Your task to perform on an android device: How much does a 3 bedroom apartment rent for in Austin? Image 0: 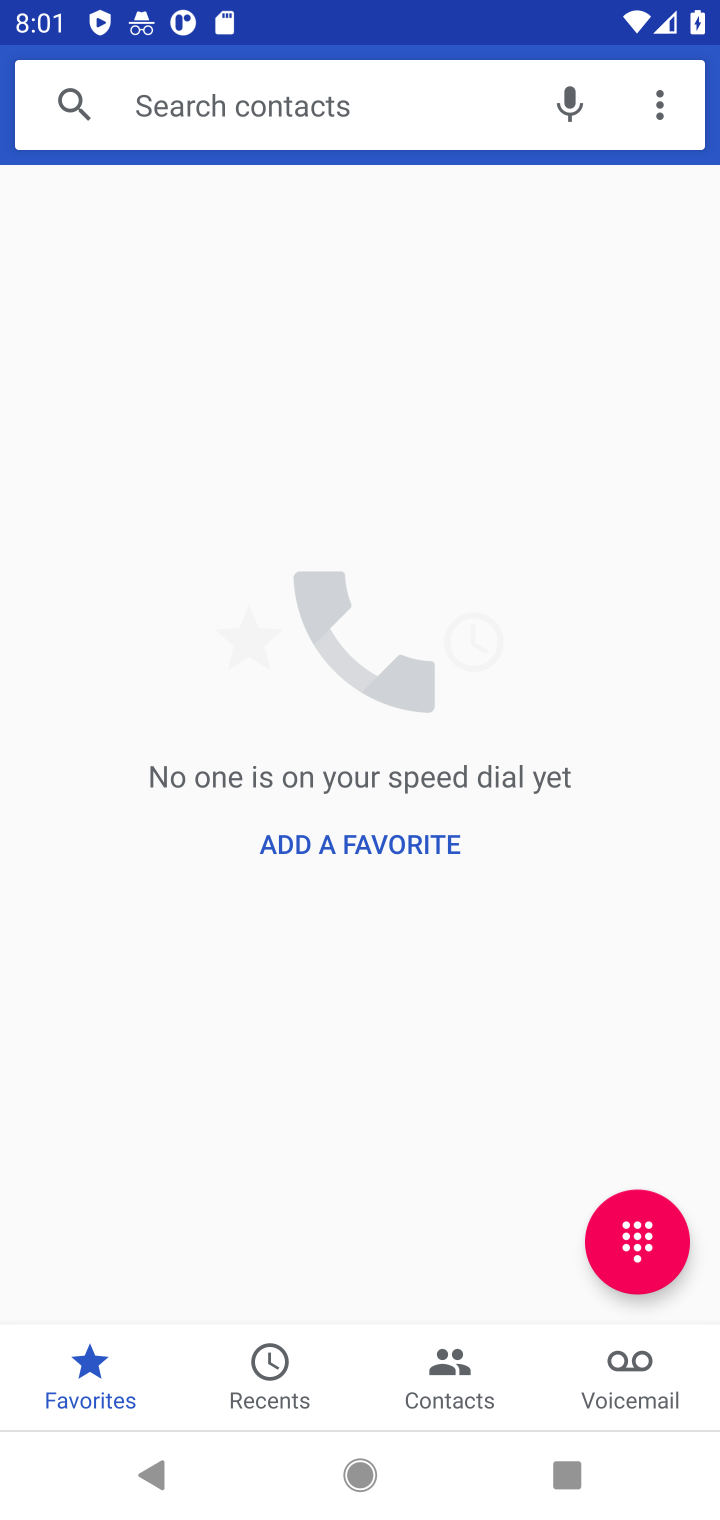
Step 0: press home button
Your task to perform on an android device: How much does a 3 bedroom apartment rent for in Austin? Image 1: 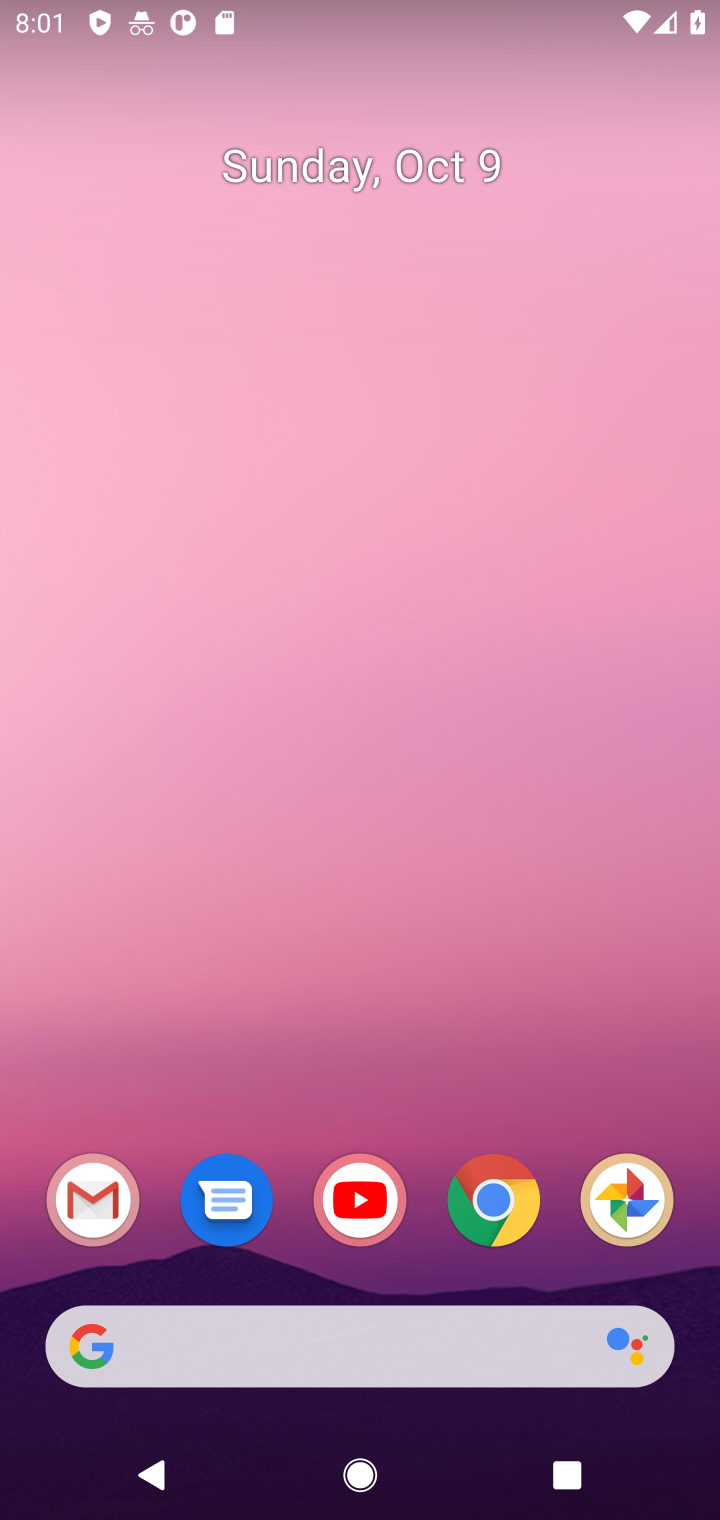
Step 1: click (504, 1210)
Your task to perform on an android device: How much does a 3 bedroom apartment rent for in Austin? Image 2: 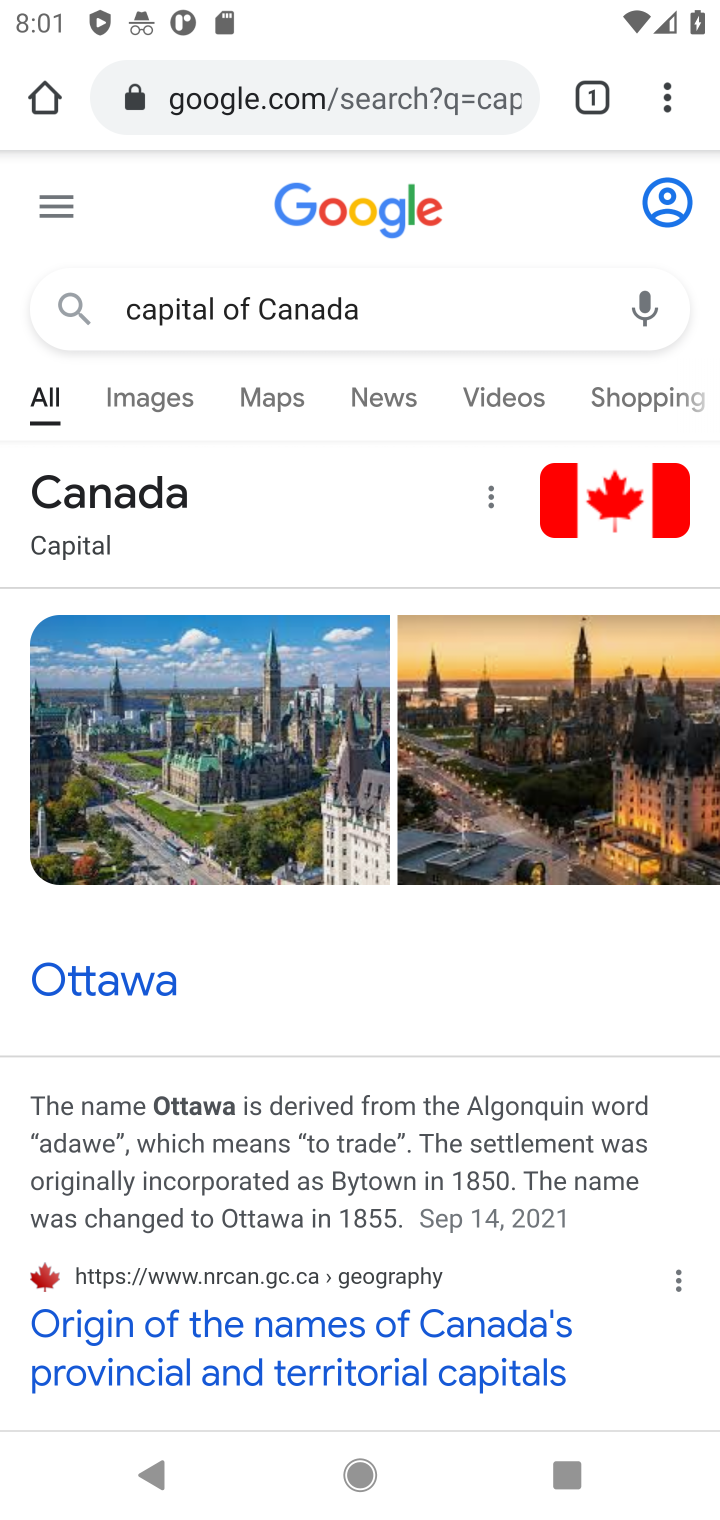
Step 2: click (428, 98)
Your task to perform on an android device: How much does a 3 bedroom apartment rent for in Austin? Image 3: 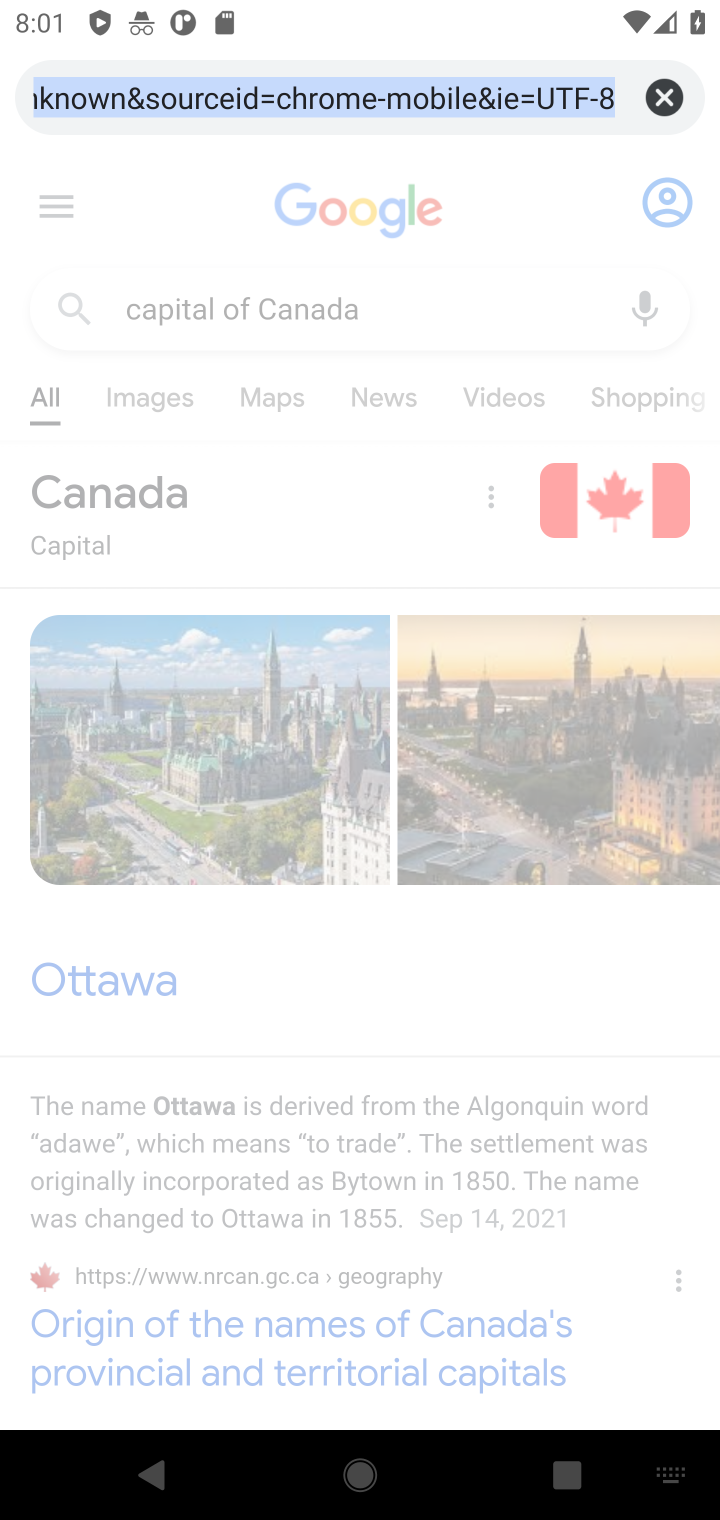
Step 3: type "3 bedroom apartment rent for in Austin"
Your task to perform on an android device: How much does a 3 bedroom apartment rent for in Austin? Image 4: 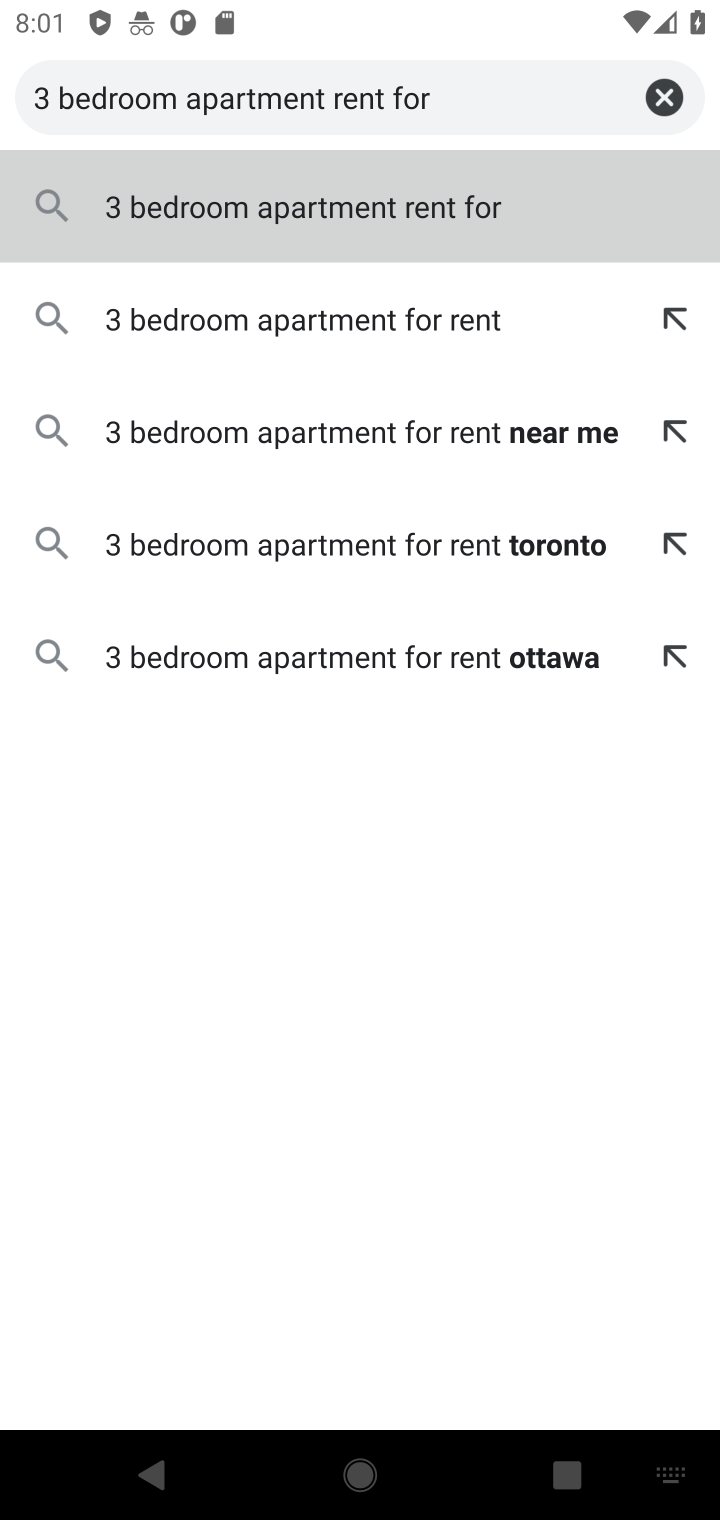
Step 4: click (478, 88)
Your task to perform on an android device: How much does a 3 bedroom apartment rent for in Austin? Image 5: 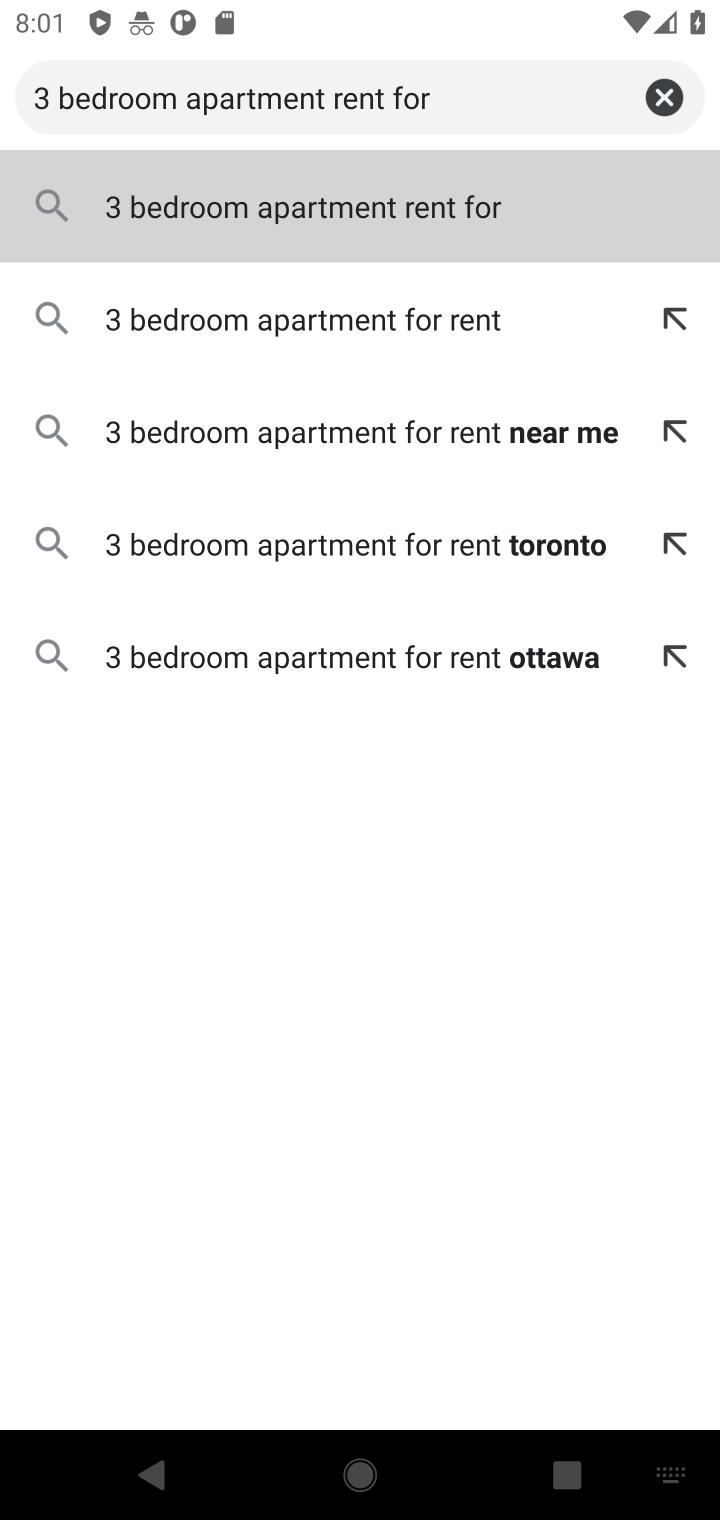
Step 5: type " in austin"
Your task to perform on an android device: How much does a 3 bedroom apartment rent for in Austin? Image 6: 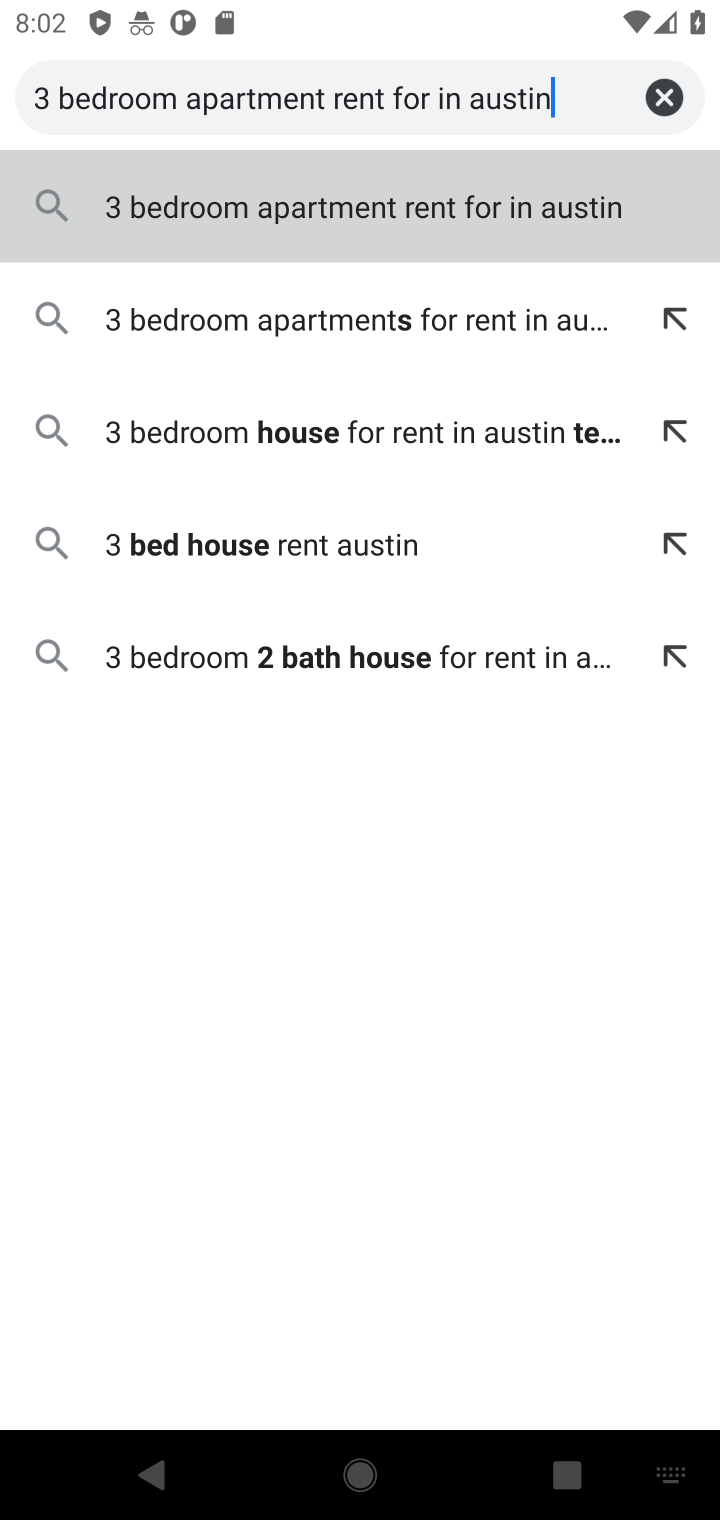
Step 6: click (530, 200)
Your task to perform on an android device: How much does a 3 bedroom apartment rent for in Austin? Image 7: 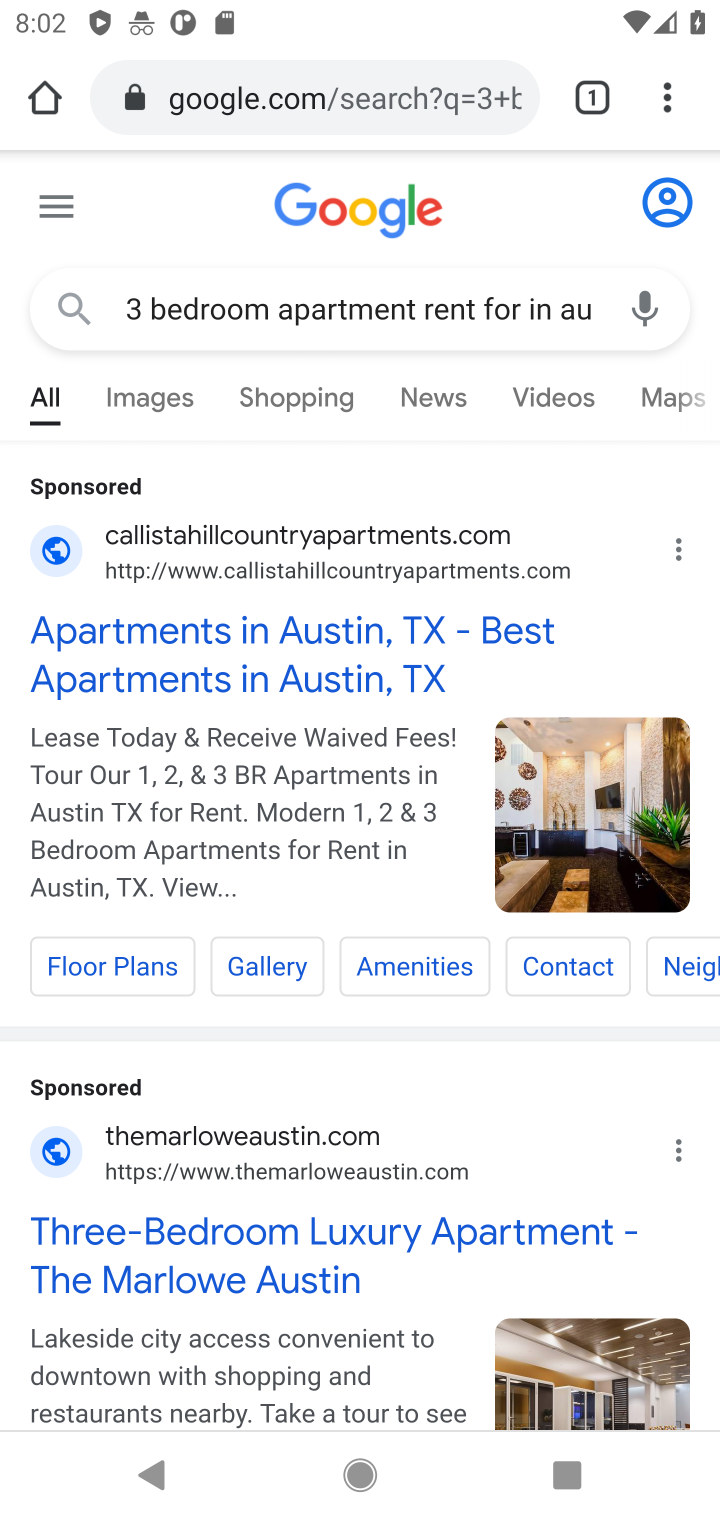
Step 7: drag from (468, 1318) to (411, 696)
Your task to perform on an android device: How much does a 3 bedroom apartment rent for in Austin? Image 8: 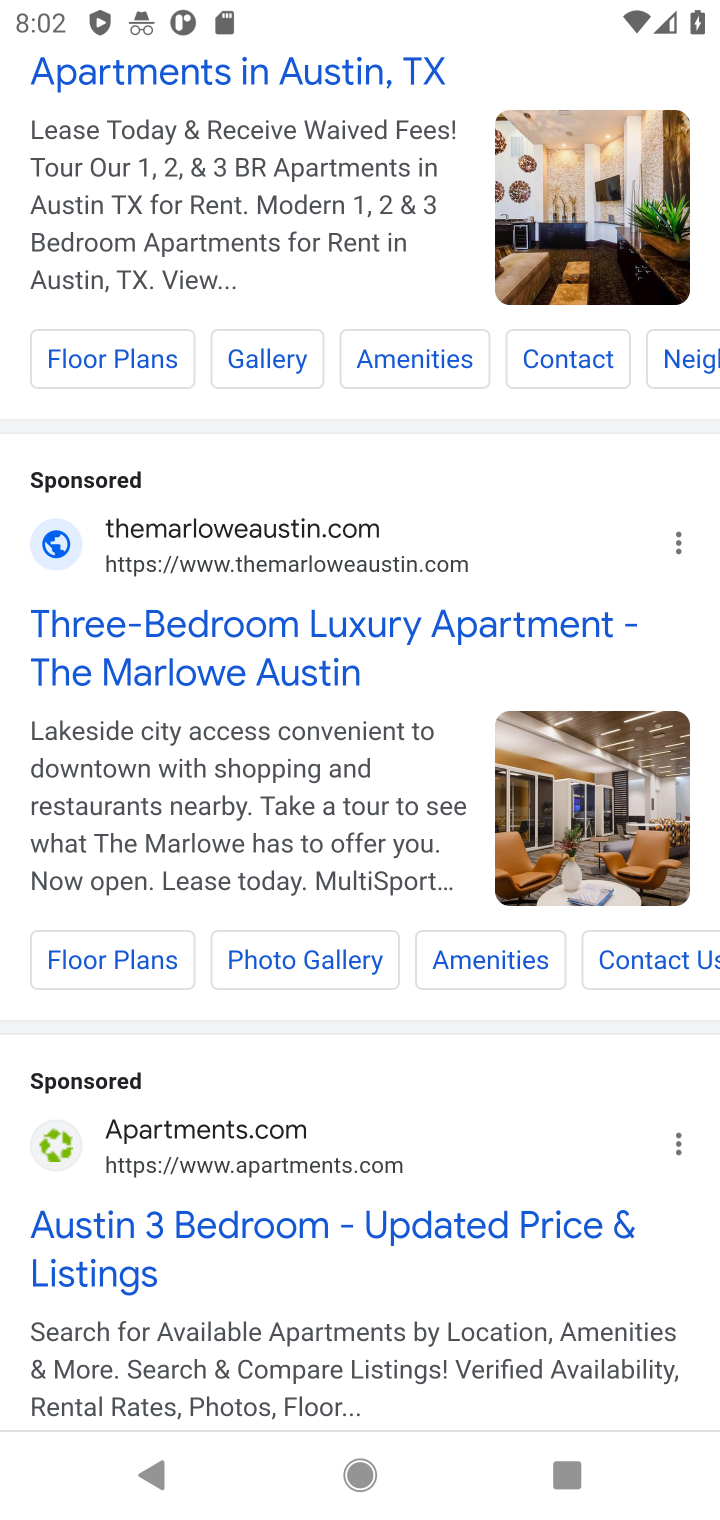
Step 8: click (307, 1218)
Your task to perform on an android device: How much does a 3 bedroom apartment rent for in Austin? Image 9: 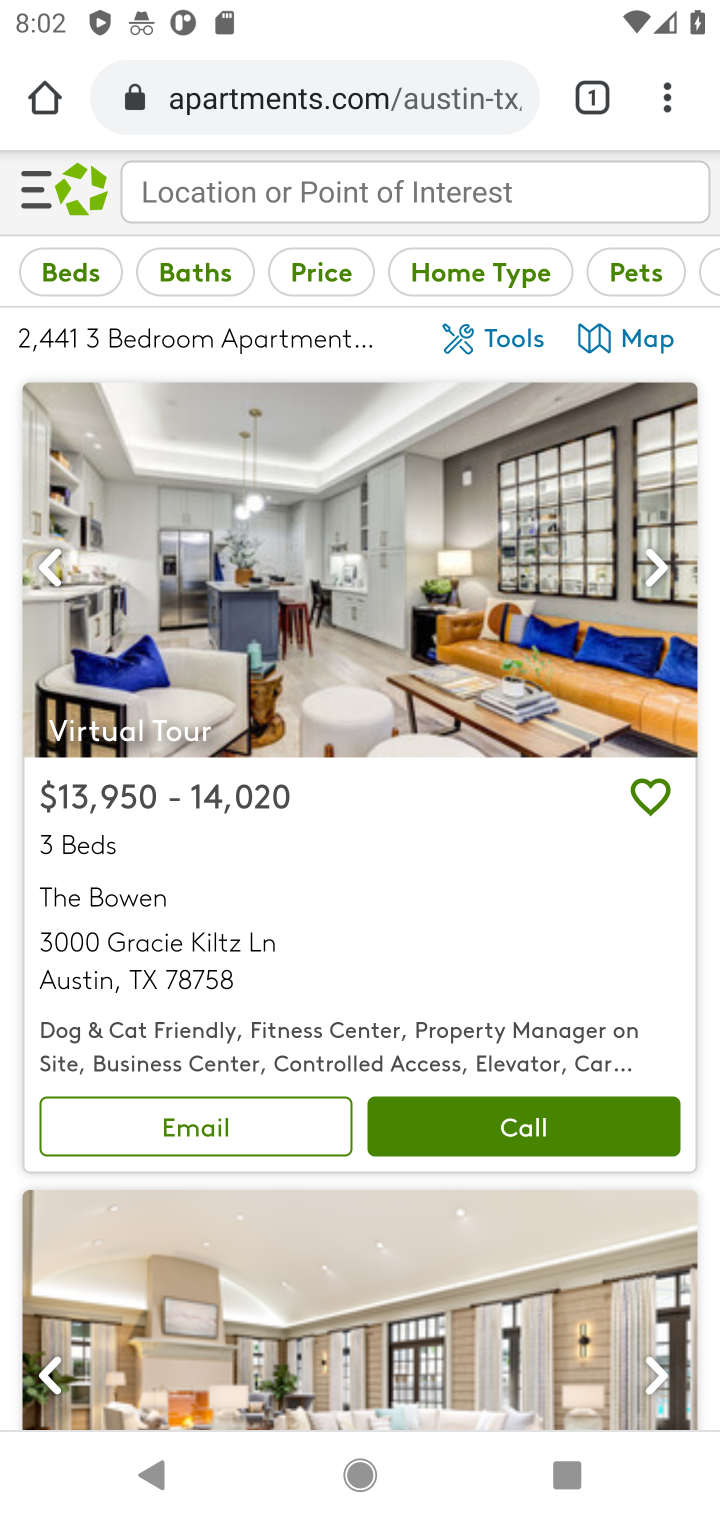
Step 9: task complete